Your task to perform on an android device: delete the emails in spam in the gmail app Image 0: 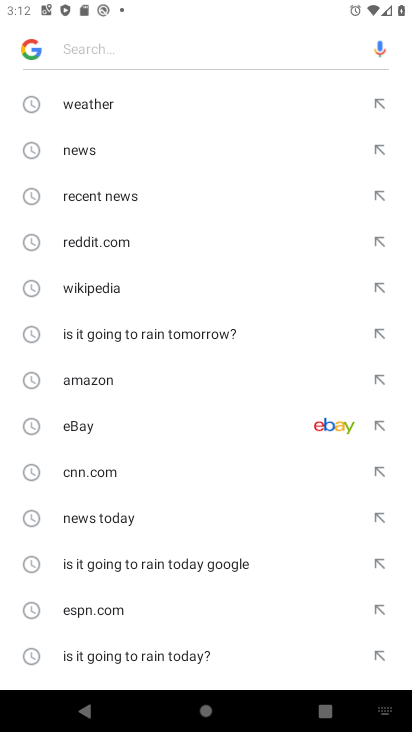
Step 0: press home button
Your task to perform on an android device: delete the emails in spam in the gmail app Image 1: 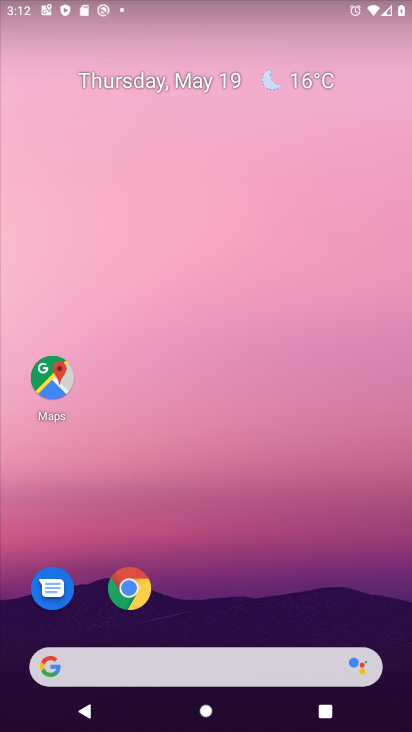
Step 1: drag from (222, 460) to (246, 174)
Your task to perform on an android device: delete the emails in spam in the gmail app Image 2: 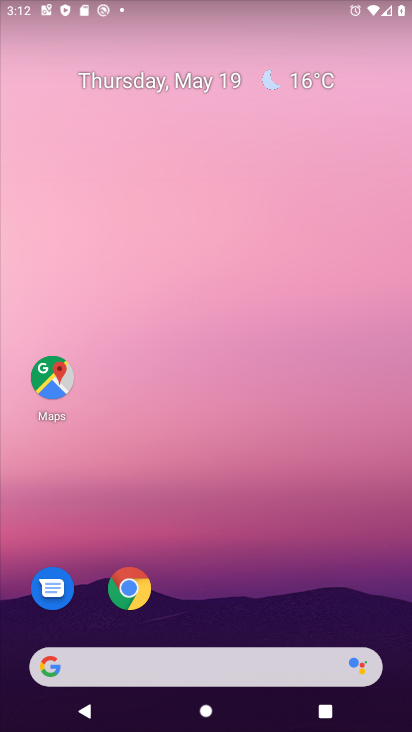
Step 2: drag from (211, 555) to (258, 116)
Your task to perform on an android device: delete the emails in spam in the gmail app Image 3: 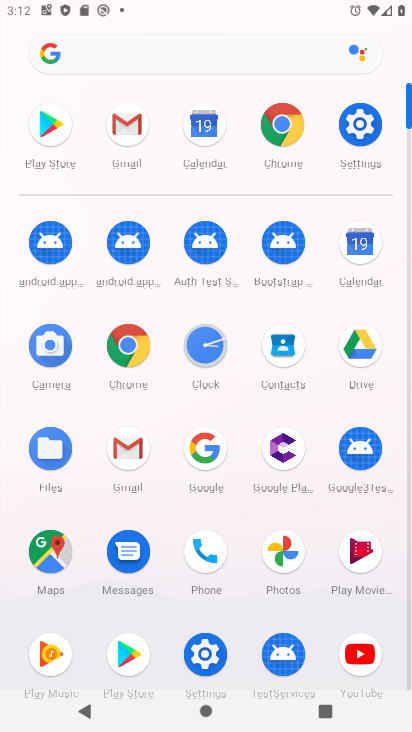
Step 3: click (118, 119)
Your task to perform on an android device: delete the emails in spam in the gmail app Image 4: 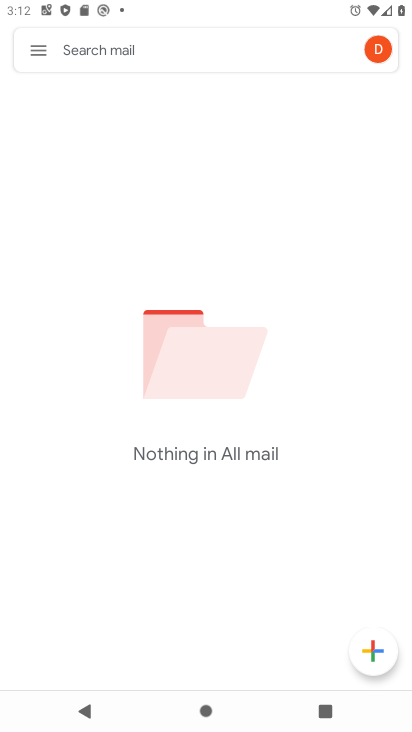
Step 4: click (36, 52)
Your task to perform on an android device: delete the emails in spam in the gmail app Image 5: 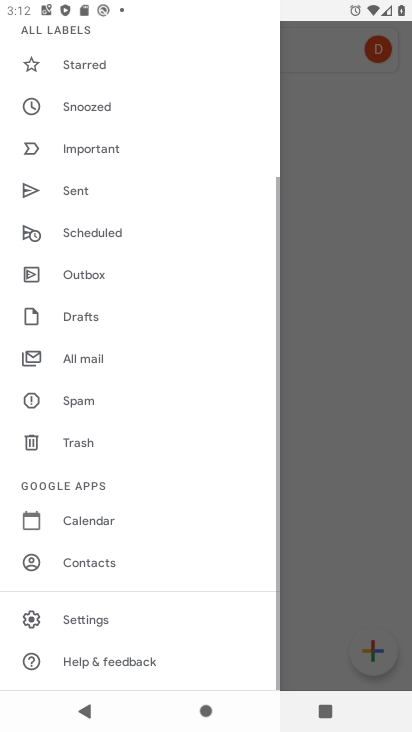
Step 5: drag from (82, 630) to (167, 227)
Your task to perform on an android device: delete the emails in spam in the gmail app Image 6: 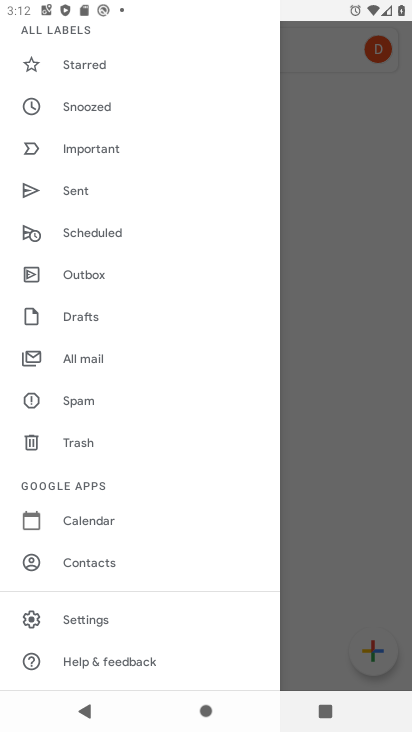
Step 6: click (76, 398)
Your task to perform on an android device: delete the emails in spam in the gmail app Image 7: 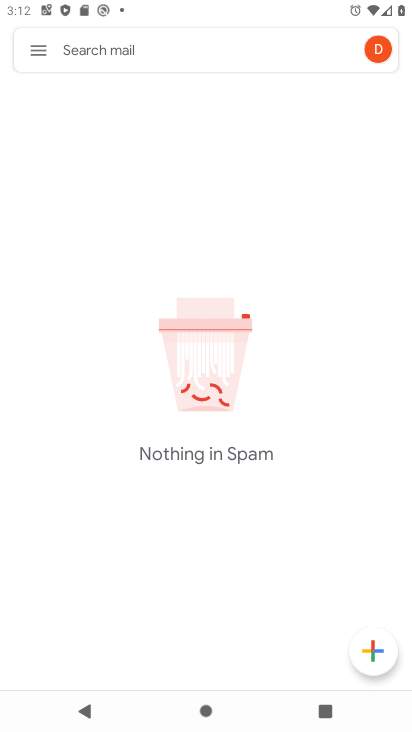
Step 7: task complete